Your task to perform on an android device: turn on airplane mode Image 0: 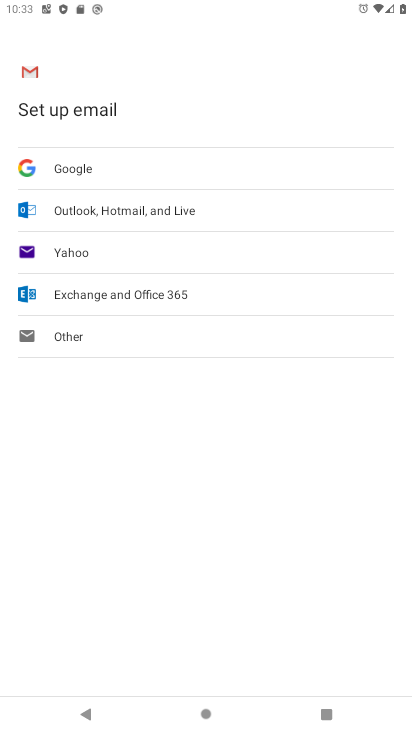
Step 0: press home button
Your task to perform on an android device: turn on airplane mode Image 1: 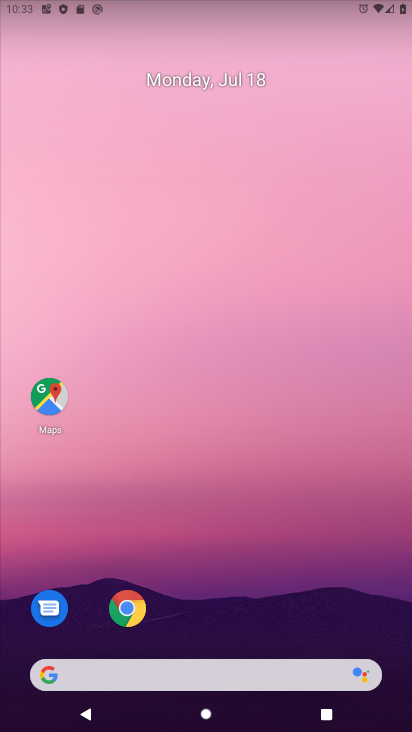
Step 1: drag from (48, 686) to (205, 181)
Your task to perform on an android device: turn on airplane mode Image 2: 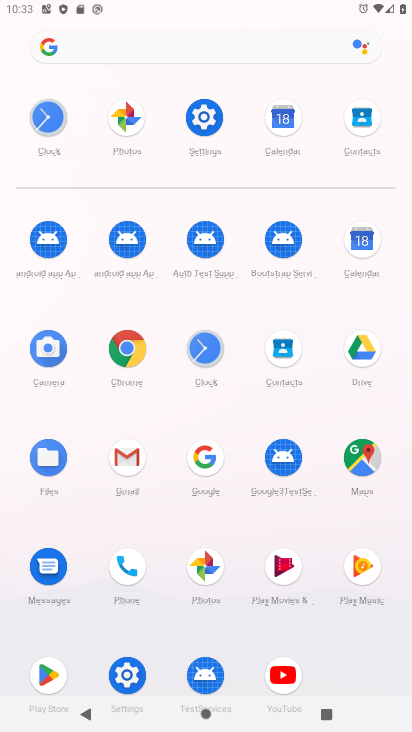
Step 2: click (110, 663)
Your task to perform on an android device: turn on airplane mode Image 3: 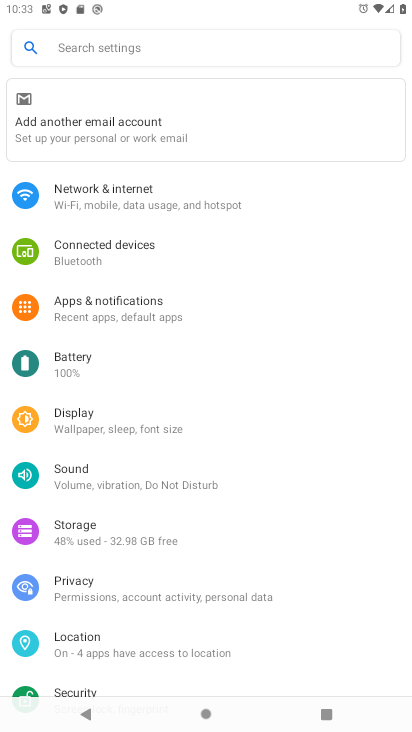
Step 3: click (92, 180)
Your task to perform on an android device: turn on airplane mode Image 4: 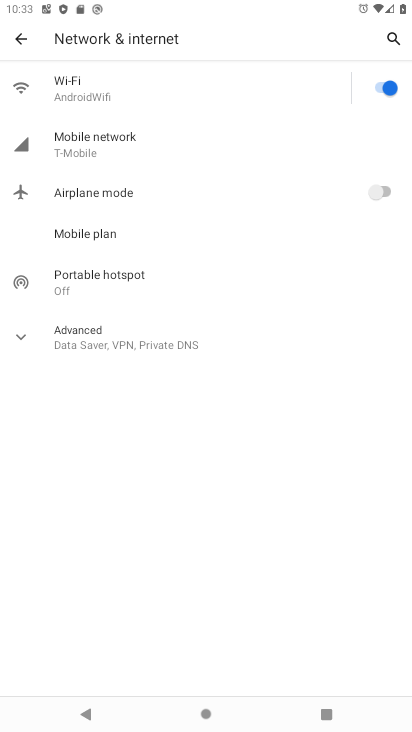
Step 4: click (378, 194)
Your task to perform on an android device: turn on airplane mode Image 5: 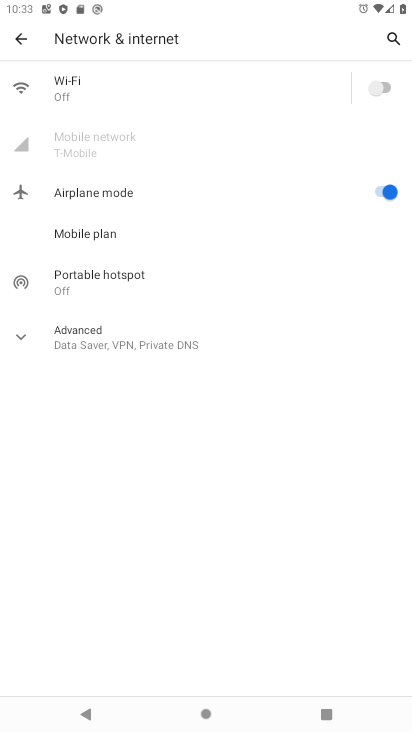
Step 5: task complete